Your task to perform on an android device: toggle location history Image 0: 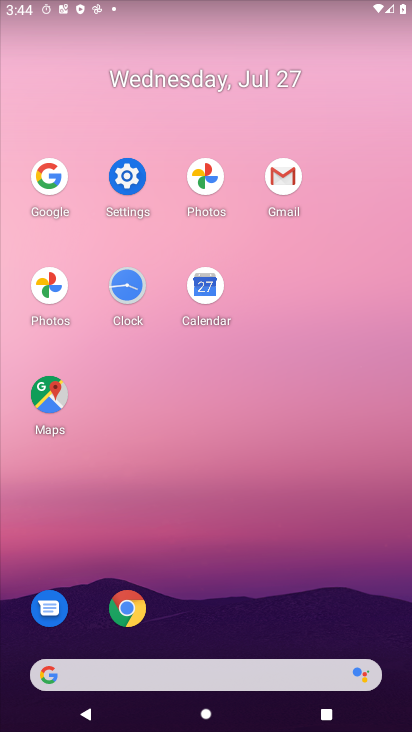
Step 0: click (127, 156)
Your task to perform on an android device: toggle location history Image 1: 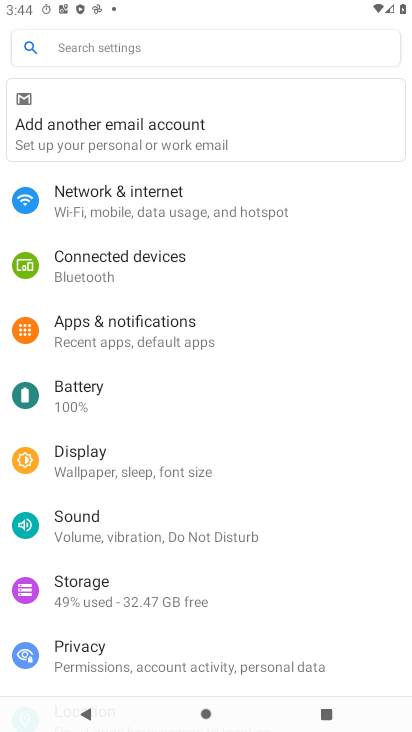
Step 1: drag from (133, 619) to (156, 356)
Your task to perform on an android device: toggle location history Image 2: 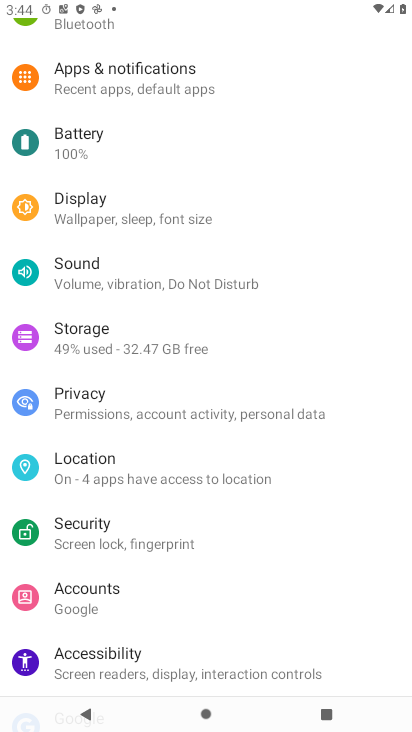
Step 2: click (122, 464)
Your task to perform on an android device: toggle location history Image 3: 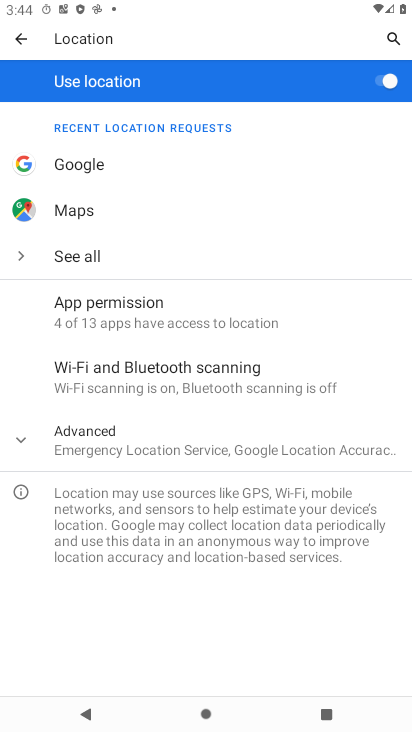
Step 3: click (163, 425)
Your task to perform on an android device: toggle location history Image 4: 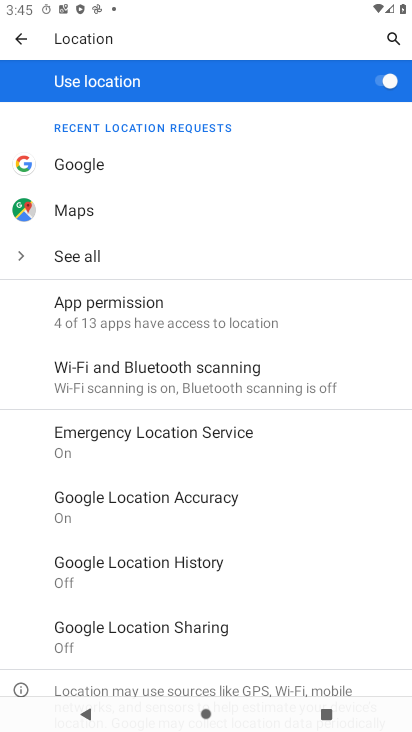
Step 4: click (222, 564)
Your task to perform on an android device: toggle location history Image 5: 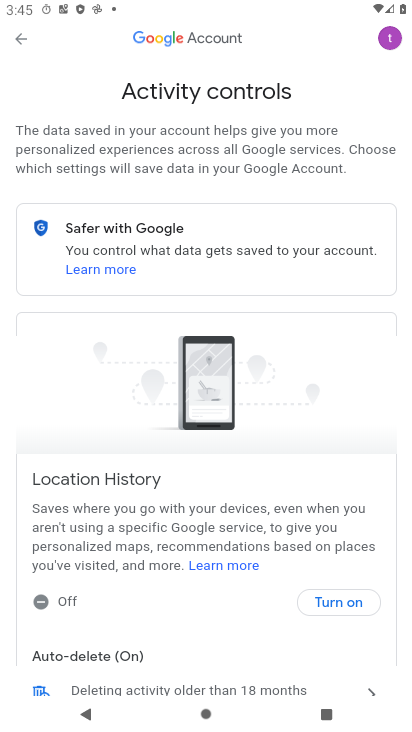
Step 5: click (334, 595)
Your task to perform on an android device: toggle location history Image 6: 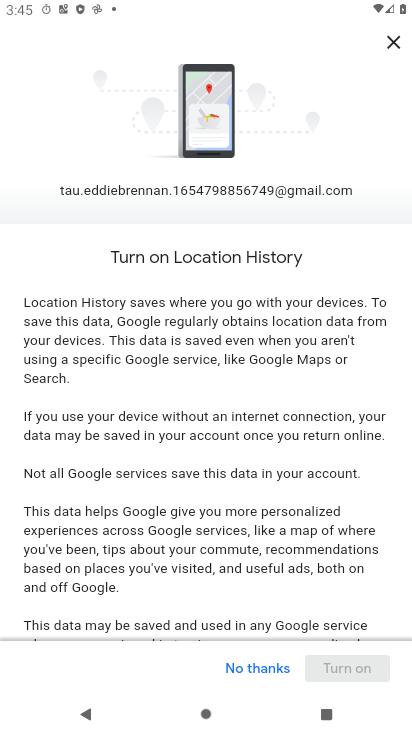
Step 6: drag from (275, 529) to (183, 82)
Your task to perform on an android device: toggle location history Image 7: 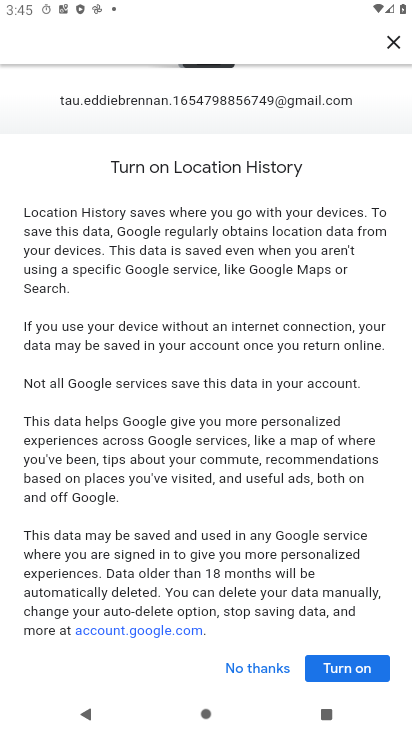
Step 7: click (367, 658)
Your task to perform on an android device: toggle location history Image 8: 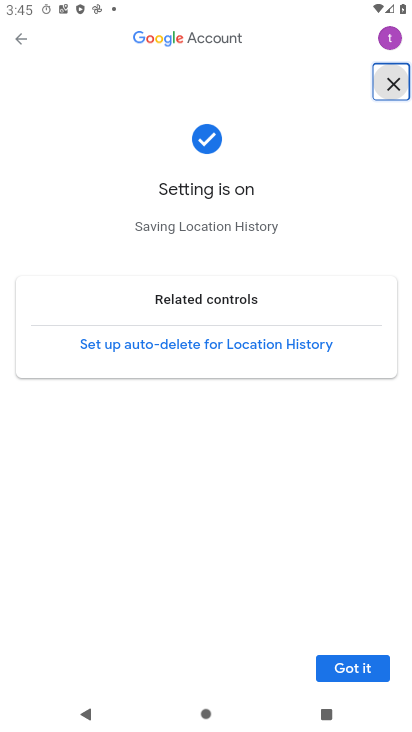
Step 8: click (367, 657)
Your task to perform on an android device: toggle location history Image 9: 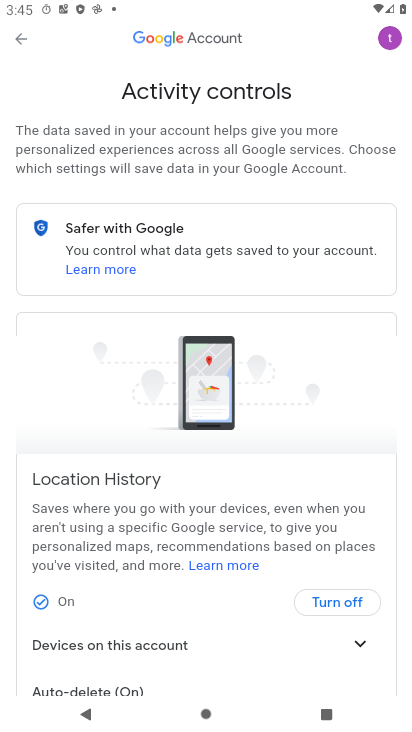
Step 9: task complete